Your task to perform on an android device: Go to settings Image 0: 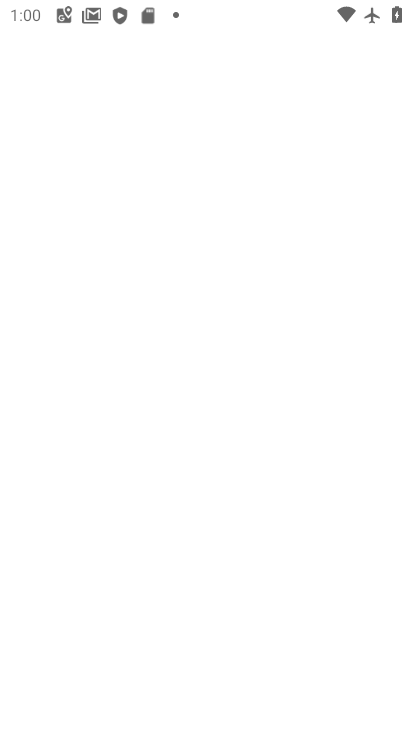
Step 0: press home button
Your task to perform on an android device: Go to settings Image 1: 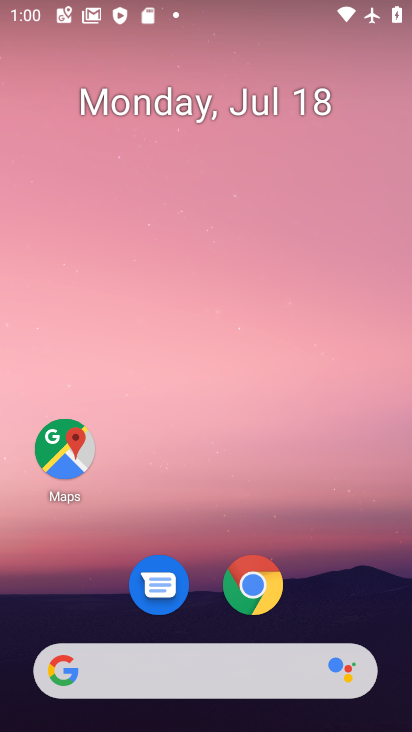
Step 1: drag from (229, 674) to (187, 222)
Your task to perform on an android device: Go to settings Image 2: 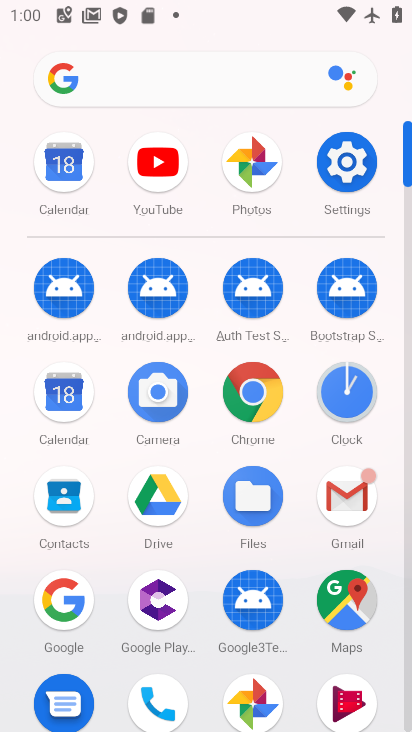
Step 2: click (345, 171)
Your task to perform on an android device: Go to settings Image 3: 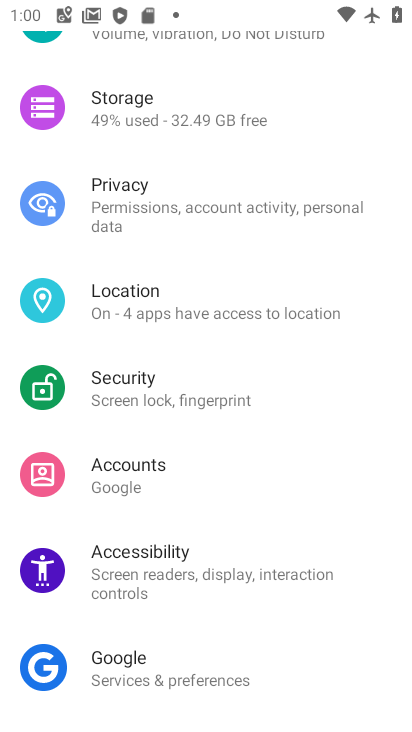
Step 3: task complete